Your task to perform on an android device: delete the emails in spam in the gmail app Image 0: 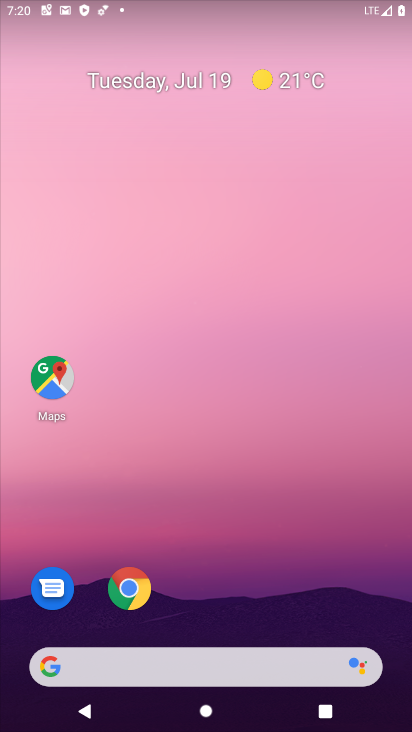
Step 0: drag from (304, 549) to (270, 60)
Your task to perform on an android device: delete the emails in spam in the gmail app Image 1: 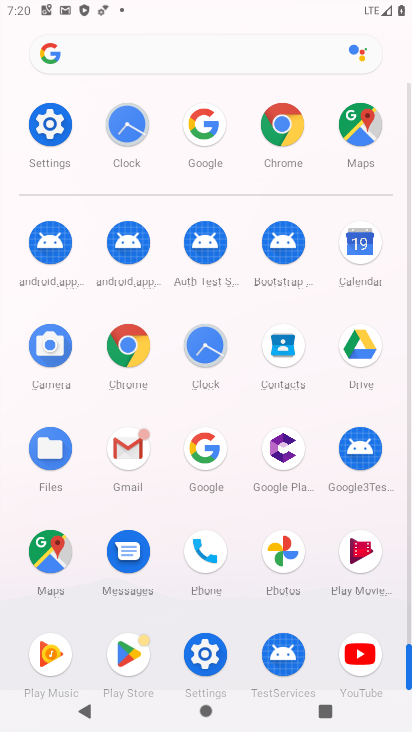
Step 1: click (135, 459)
Your task to perform on an android device: delete the emails in spam in the gmail app Image 2: 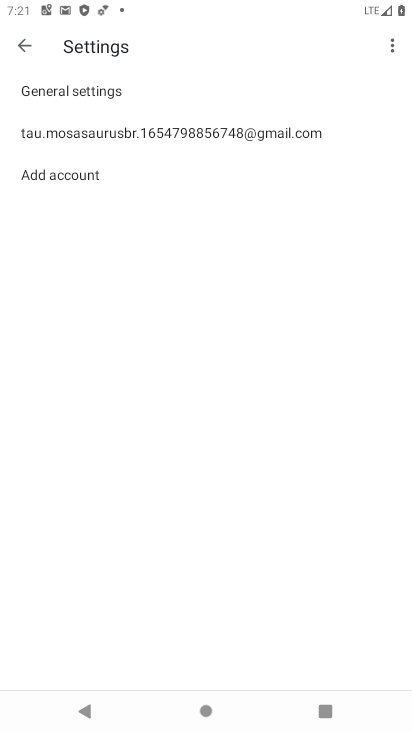
Step 2: press back button
Your task to perform on an android device: delete the emails in spam in the gmail app Image 3: 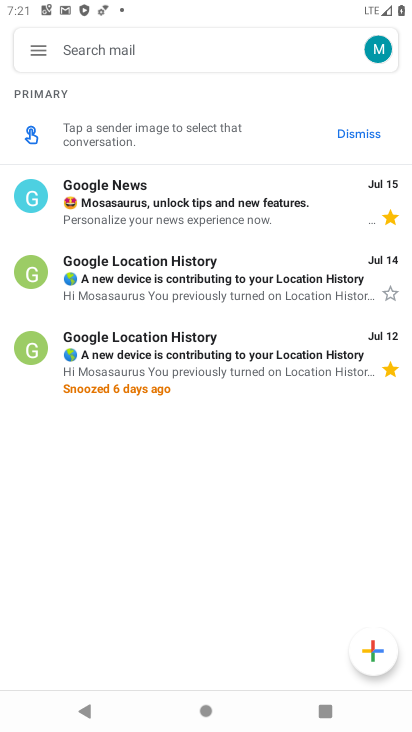
Step 3: click (37, 61)
Your task to perform on an android device: delete the emails in spam in the gmail app Image 4: 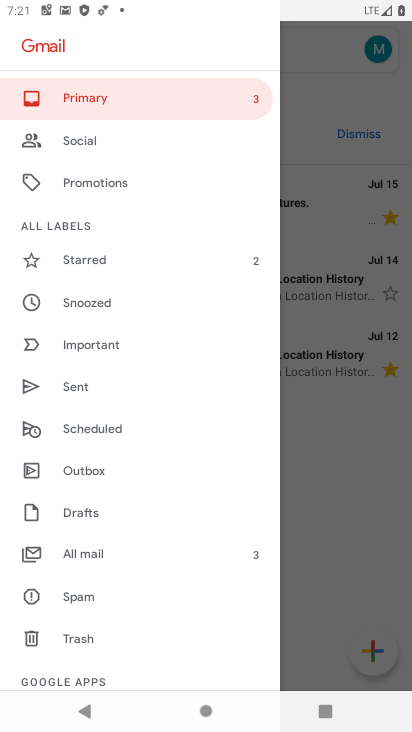
Step 4: click (103, 600)
Your task to perform on an android device: delete the emails in spam in the gmail app Image 5: 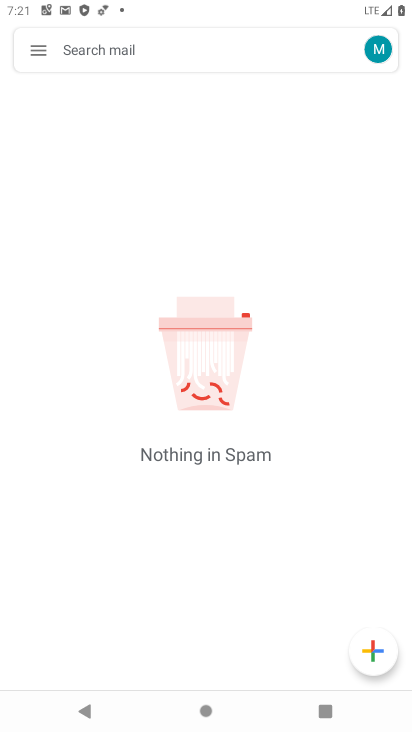
Step 5: task complete